Your task to perform on an android device: change the clock display to analog Image 0: 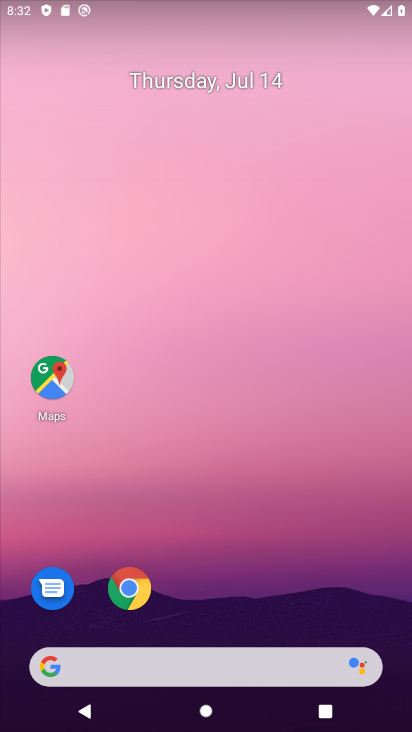
Step 0: drag from (196, 604) to (217, 166)
Your task to perform on an android device: change the clock display to analog Image 1: 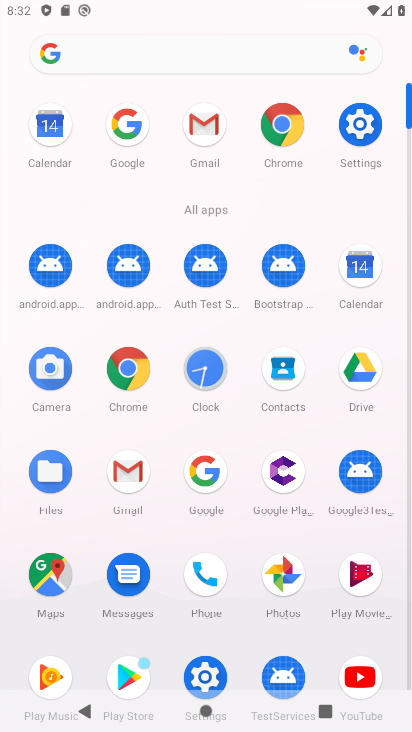
Step 1: click (204, 372)
Your task to perform on an android device: change the clock display to analog Image 2: 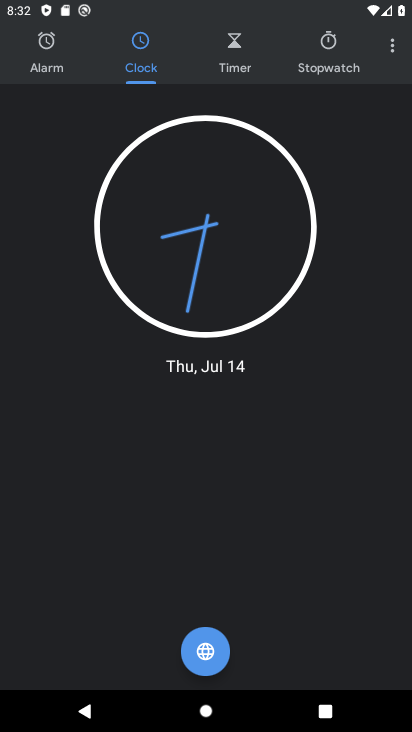
Step 2: click (390, 45)
Your task to perform on an android device: change the clock display to analog Image 3: 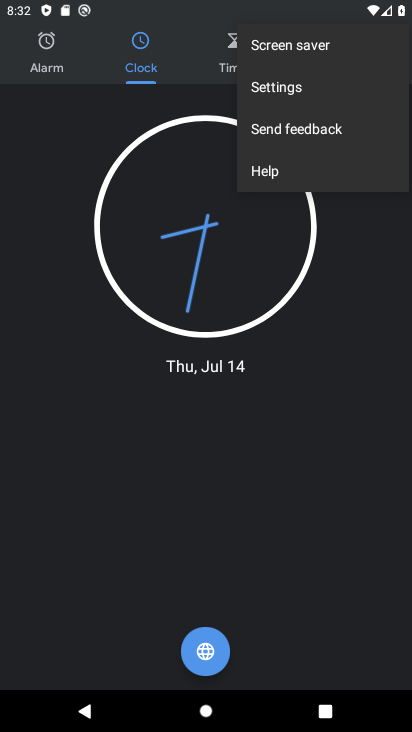
Step 3: click (303, 95)
Your task to perform on an android device: change the clock display to analog Image 4: 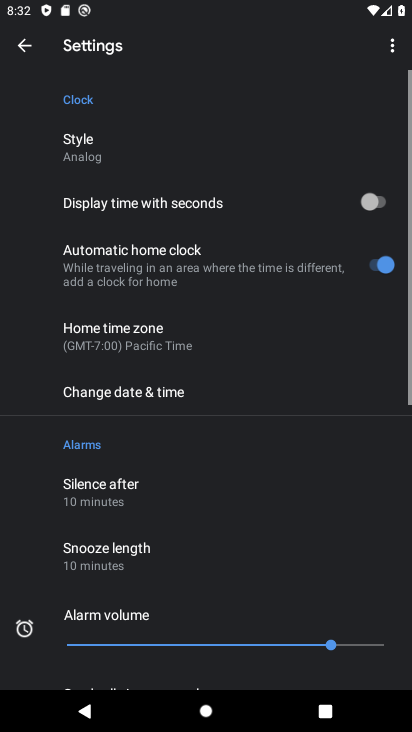
Step 4: click (100, 145)
Your task to perform on an android device: change the clock display to analog Image 5: 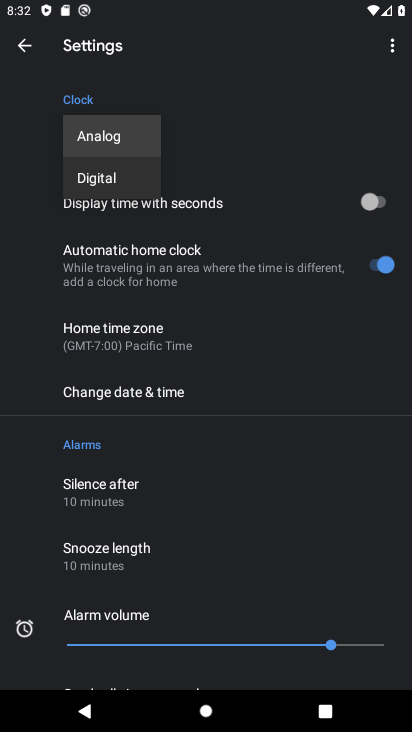
Step 5: click (102, 132)
Your task to perform on an android device: change the clock display to analog Image 6: 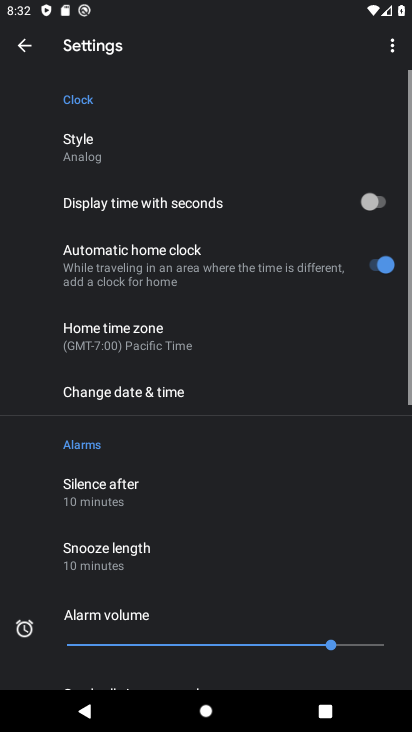
Step 6: task complete